Your task to perform on an android device: check battery use Image 0: 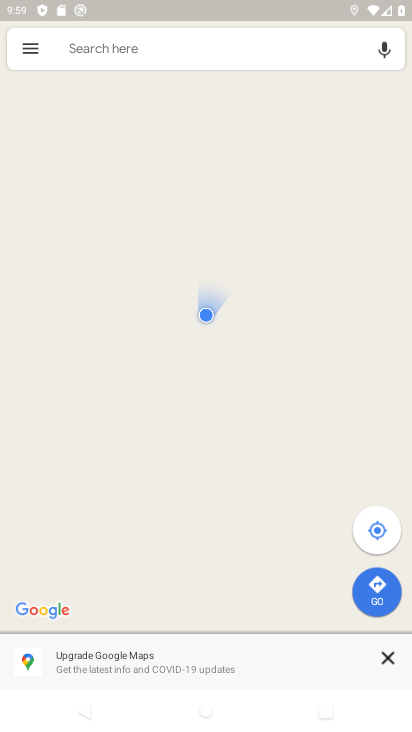
Step 0: press home button
Your task to perform on an android device: check battery use Image 1: 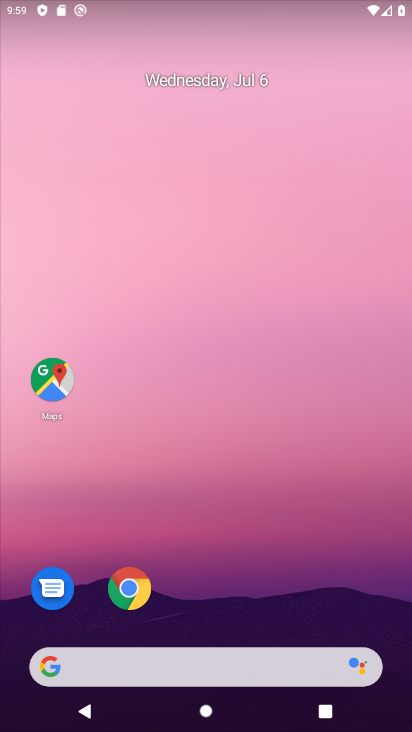
Step 1: drag from (248, 606) to (252, 218)
Your task to perform on an android device: check battery use Image 2: 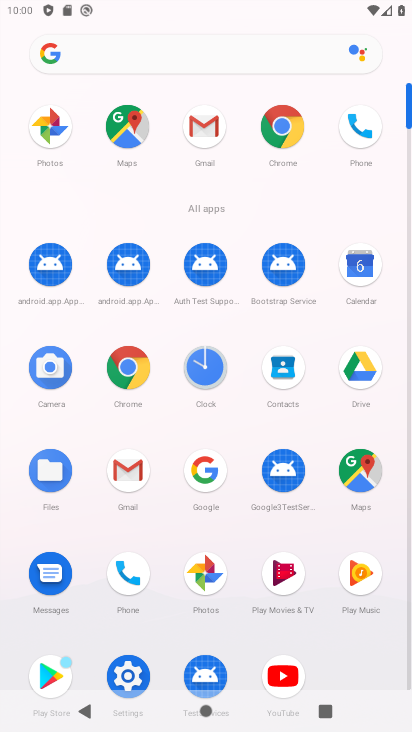
Step 2: click (126, 666)
Your task to perform on an android device: check battery use Image 3: 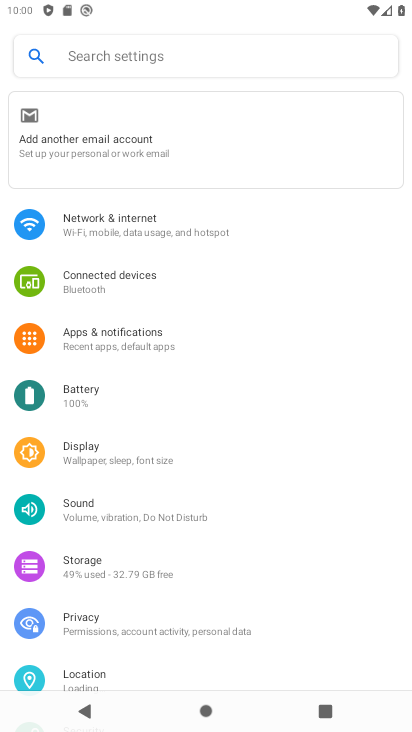
Step 3: click (123, 387)
Your task to perform on an android device: check battery use Image 4: 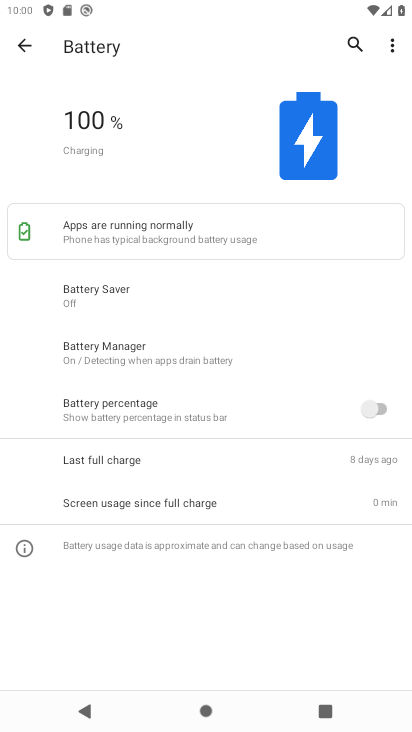
Step 4: task complete